Your task to perform on an android device: toggle javascript in the chrome app Image 0: 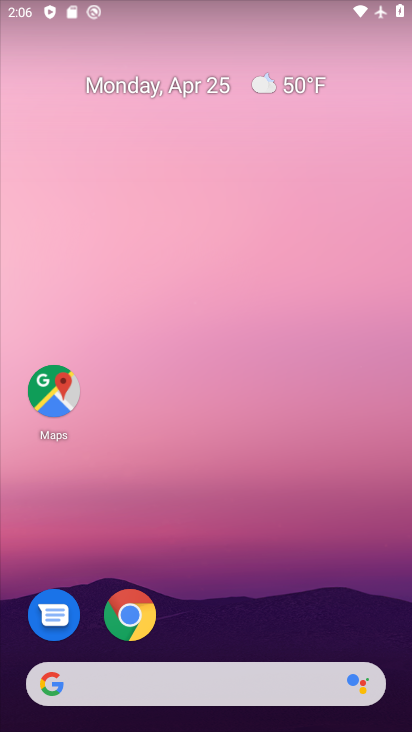
Step 0: drag from (231, 391) to (260, 127)
Your task to perform on an android device: toggle javascript in the chrome app Image 1: 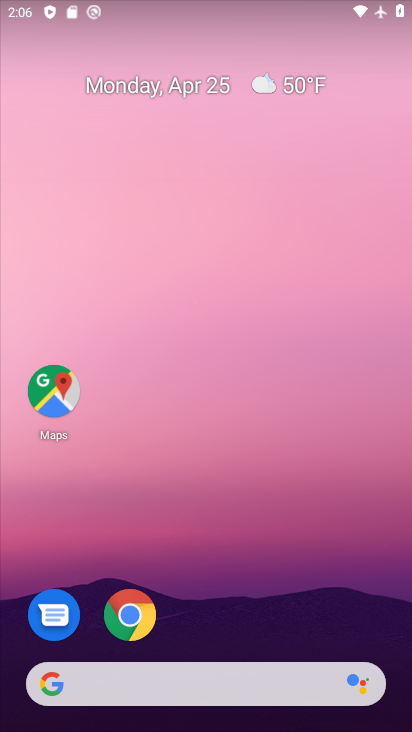
Step 1: drag from (304, 621) to (231, 85)
Your task to perform on an android device: toggle javascript in the chrome app Image 2: 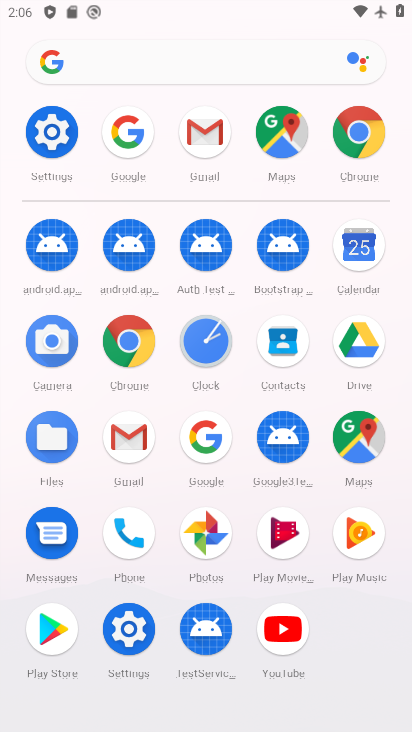
Step 2: click (119, 353)
Your task to perform on an android device: toggle javascript in the chrome app Image 3: 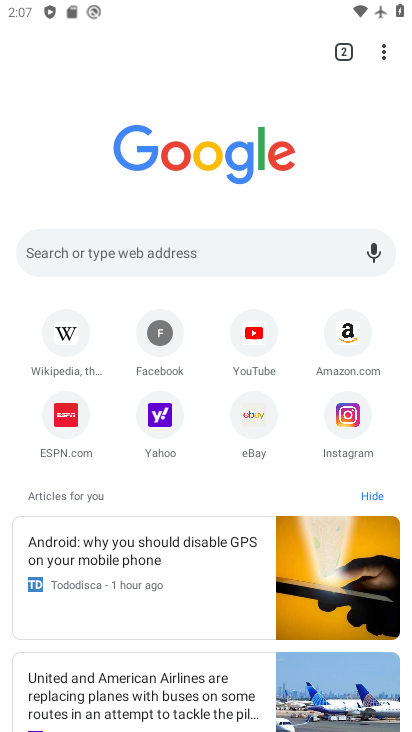
Step 3: click (379, 54)
Your task to perform on an android device: toggle javascript in the chrome app Image 4: 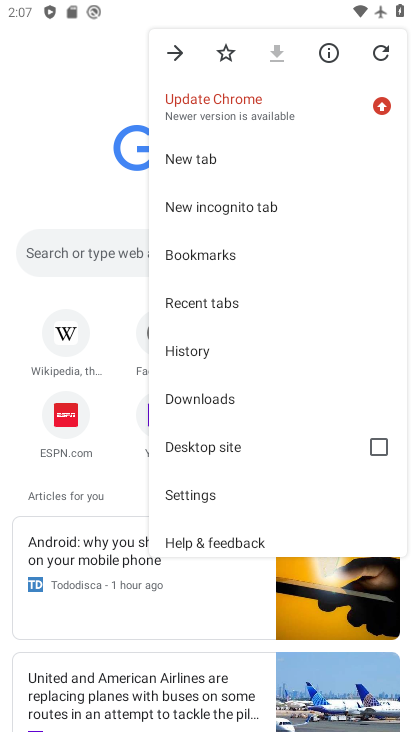
Step 4: click (199, 496)
Your task to perform on an android device: toggle javascript in the chrome app Image 5: 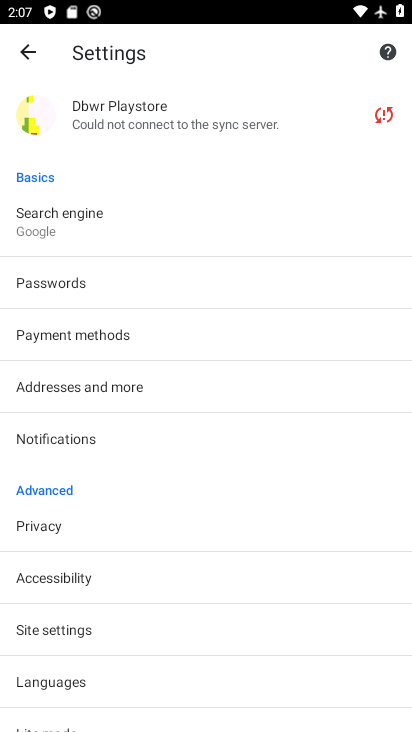
Step 5: click (91, 624)
Your task to perform on an android device: toggle javascript in the chrome app Image 6: 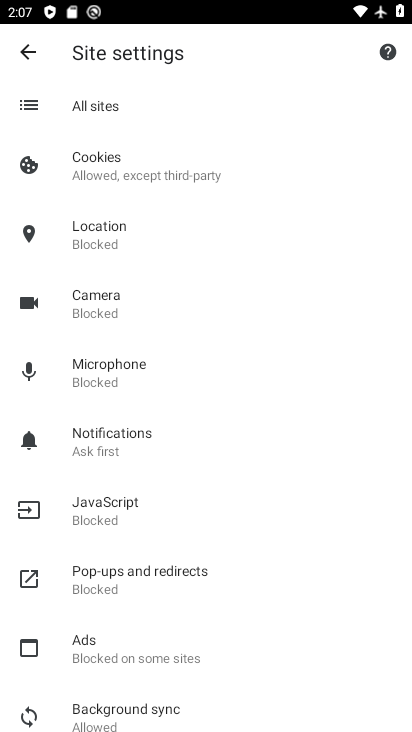
Step 6: click (93, 500)
Your task to perform on an android device: toggle javascript in the chrome app Image 7: 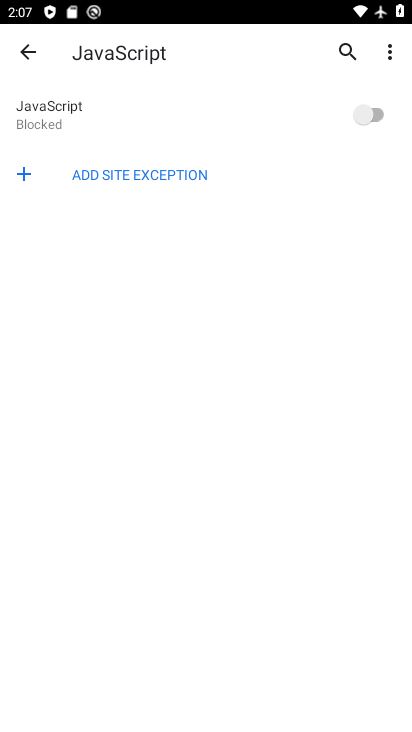
Step 7: click (376, 118)
Your task to perform on an android device: toggle javascript in the chrome app Image 8: 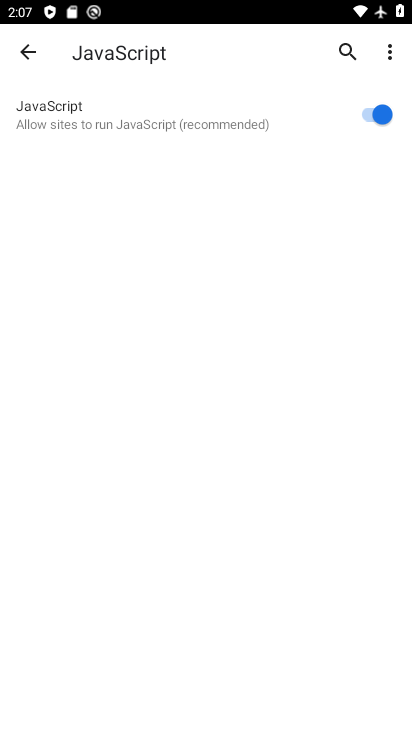
Step 8: task complete